Your task to perform on an android device: Show me the alarms in the clock app Image 0: 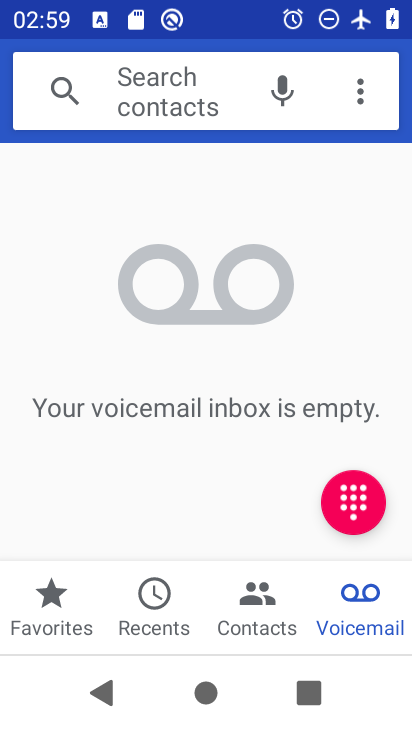
Step 0: press home button
Your task to perform on an android device: Show me the alarms in the clock app Image 1: 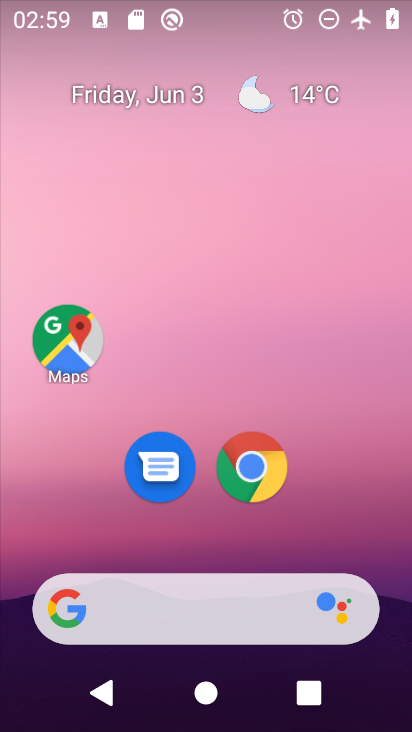
Step 1: drag from (391, 581) to (306, 185)
Your task to perform on an android device: Show me the alarms in the clock app Image 2: 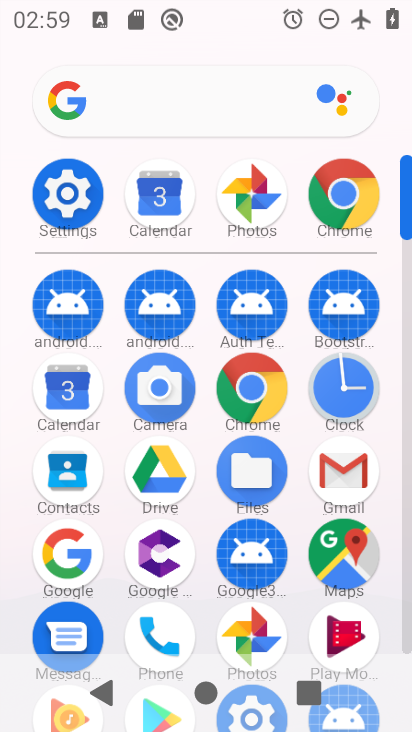
Step 2: click (404, 631)
Your task to perform on an android device: Show me the alarms in the clock app Image 3: 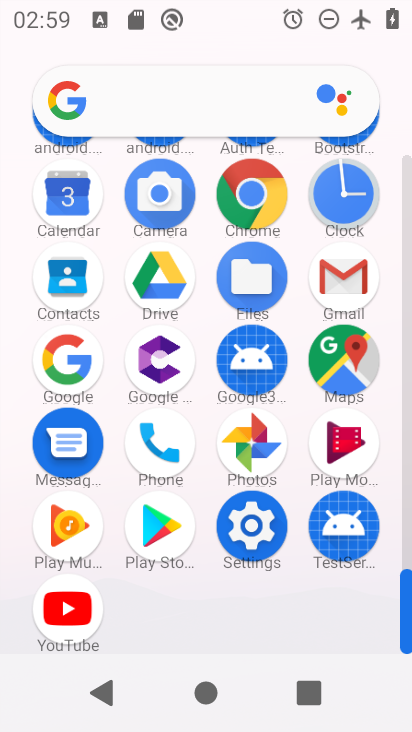
Step 3: click (344, 191)
Your task to perform on an android device: Show me the alarms in the clock app Image 4: 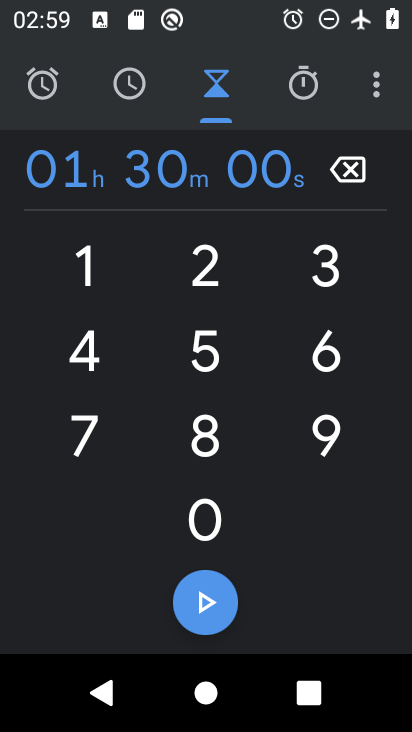
Step 4: click (26, 81)
Your task to perform on an android device: Show me the alarms in the clock app Image 5: 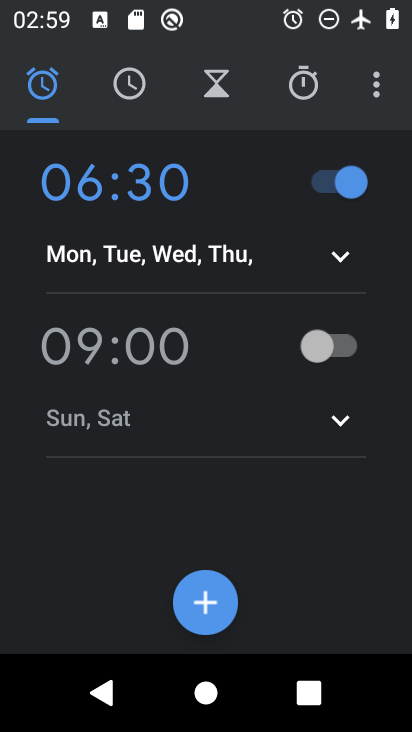
Step 5: task complete